Your task to perform on an android device: Toggle the flashlight Image 0: 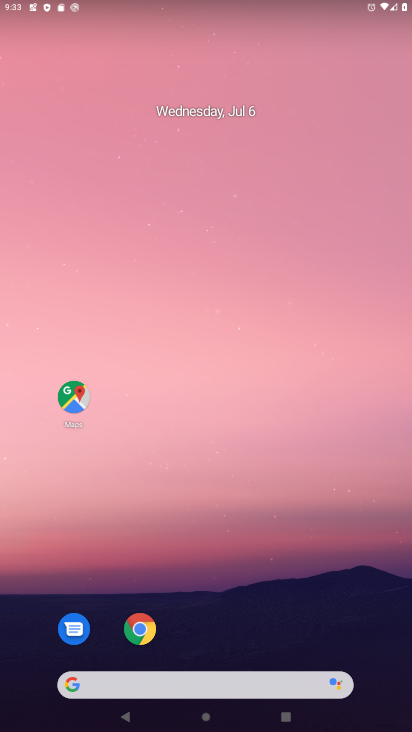
Step 0: drag from (77, 518) to (255, 67)
Your task to perform on an android device: Toggle the flashlight Image 1: 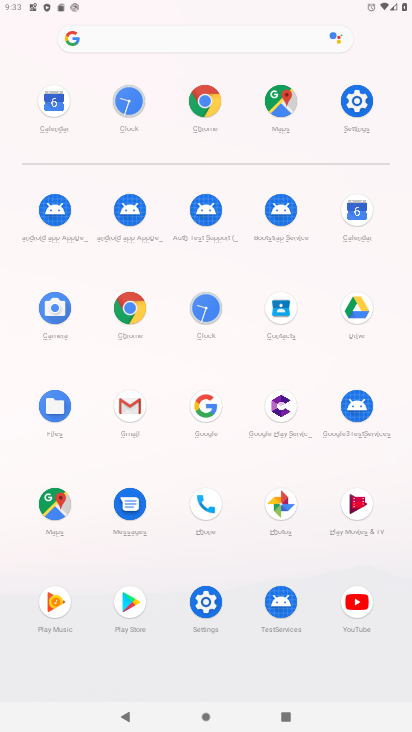
Step 1: click (354, 100)
Your task to perform on an android device: Toggle the flashlight Image 2: 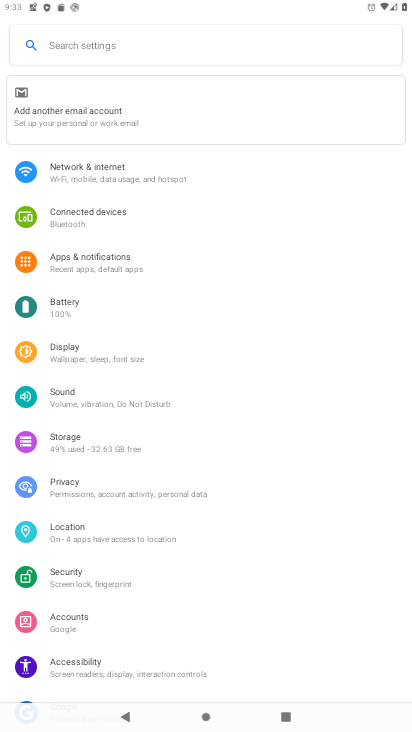
Step 2: task complete